Your task to perform on an android device: turn on sleep mode Image 0: 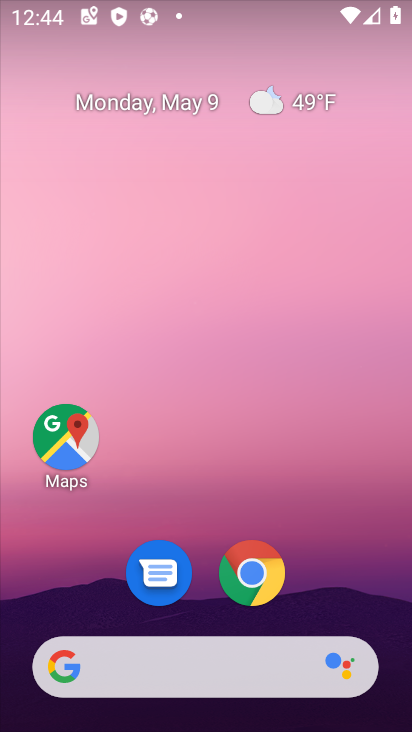
Step 0: drag from (212, 708) to (198, 136)
Your task to perform on an android device: turn on sleep mode Image 1: 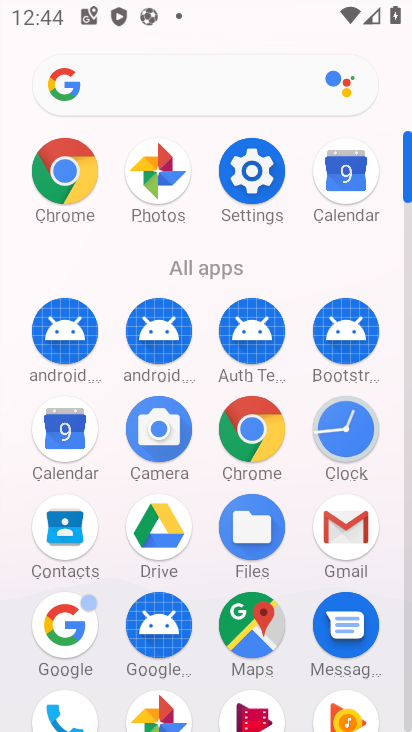
Step 1: click (263, 175)
Your task to perform on an android device: turn on sleep mode Image 2: 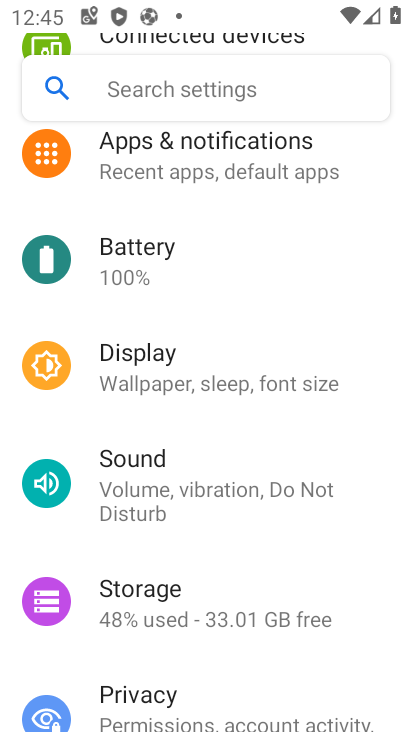
Step 2: click (292, 376)
Your task to perform on an android device: turn on sleep mode Image 3: 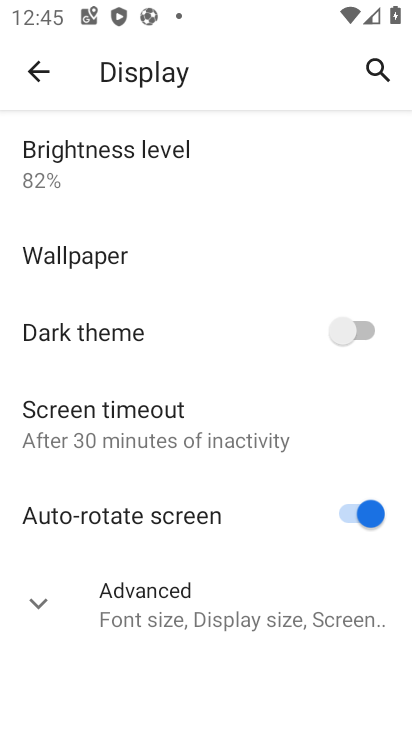
Step 3: task complete